Your task to perform on an android device: see tabs open on other devices in the chrome app Image 0: 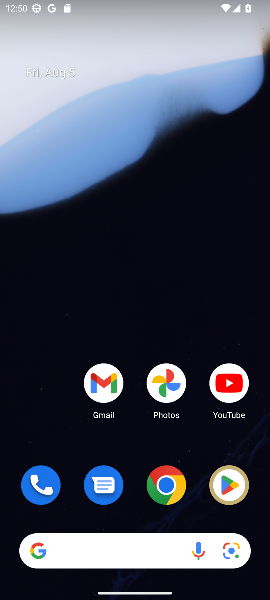
Step 0: click (167, 482)
Your task to perform on an android device: see tabs open on other devices in the chrome app Image 1: 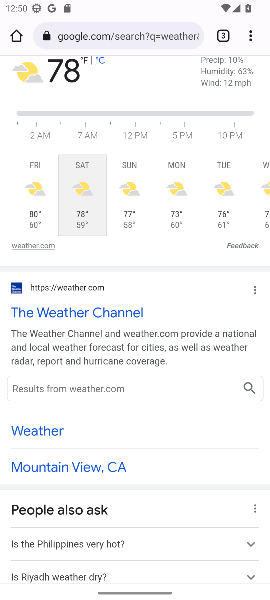
Step 1: click (248, 33)
Your task to perform on an android device: see tabs open on other devices in the chrome app Image 2: 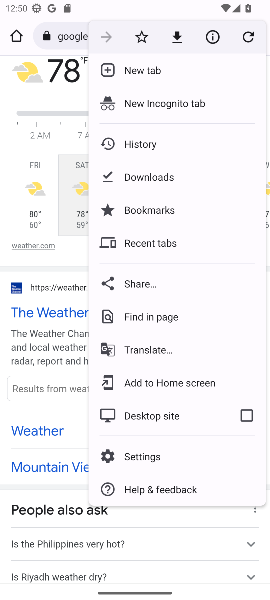
Step 2: click (138, 236)
Your task to perform on an android device: see tabs open on other devices in the chrome app Image 3: 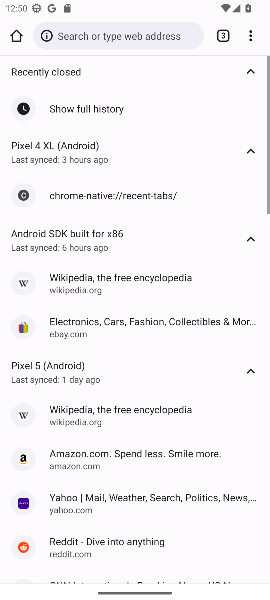
Step 3: task complete